Your task to perform on an android device: Go to Wikipedia Image 0: 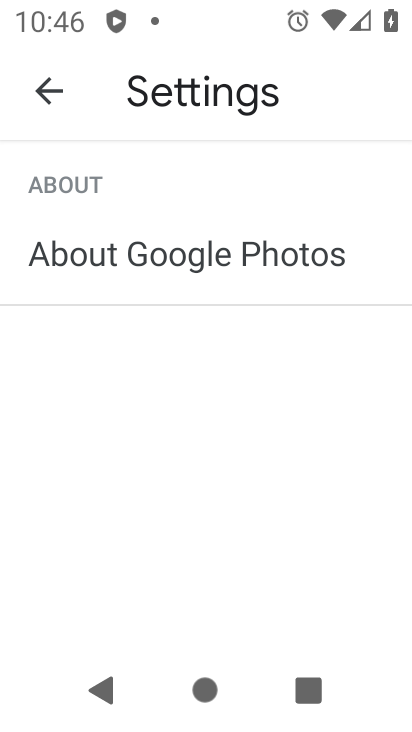
Step 0: press back button
Your task to perform on an android device: Go to Wikipedia Image 1: 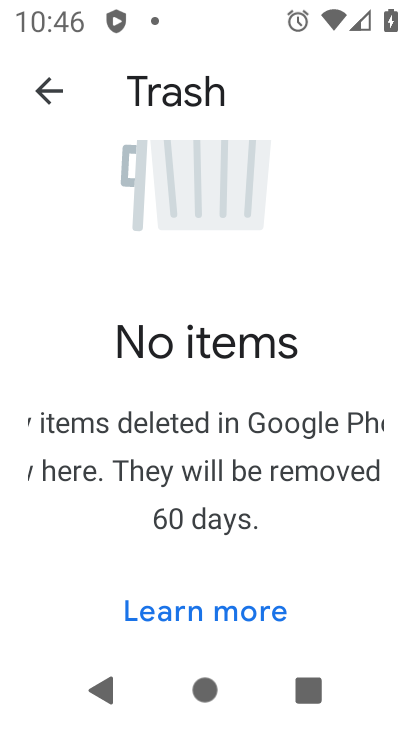
Step 1: press back button
Your task to perform on an android device: Go to Wikipedia Image 2: 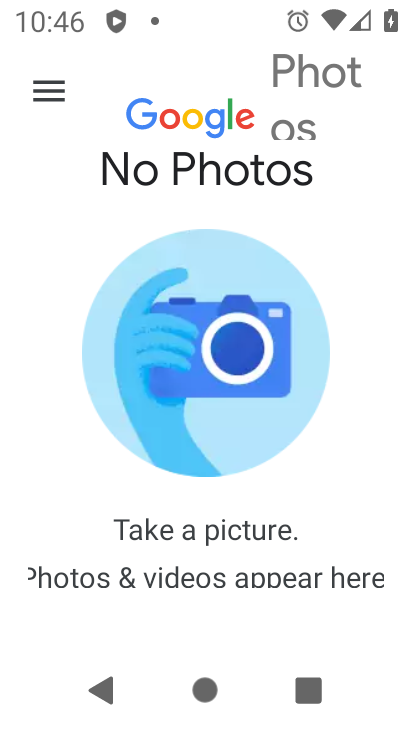
Step 2: press home button
Your task to perform on an android device: Go to Wikipedia Image 3: 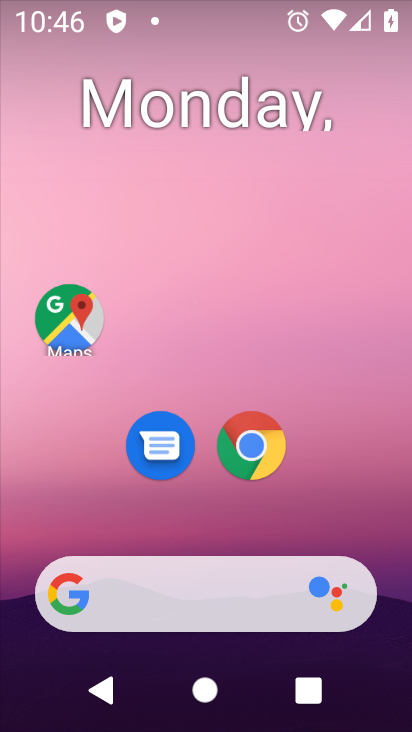
Step 3: click (267, 442)
Your task to perform on an android device: Go to Wikipedia Image 4: 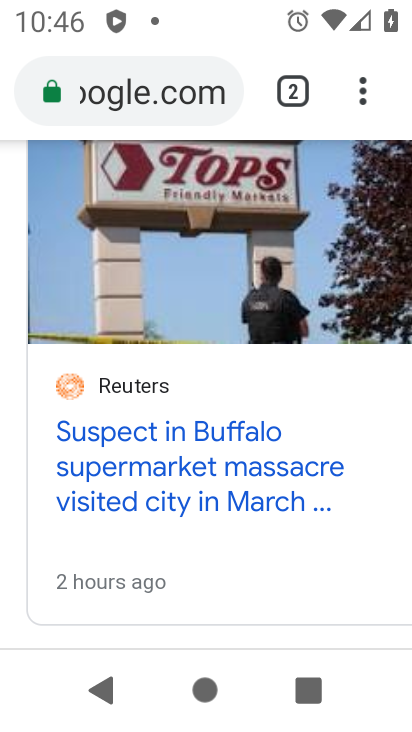
Step 4: click (296, 86)
Your task to perform on an android device: Go to Wikipedia Image 5: 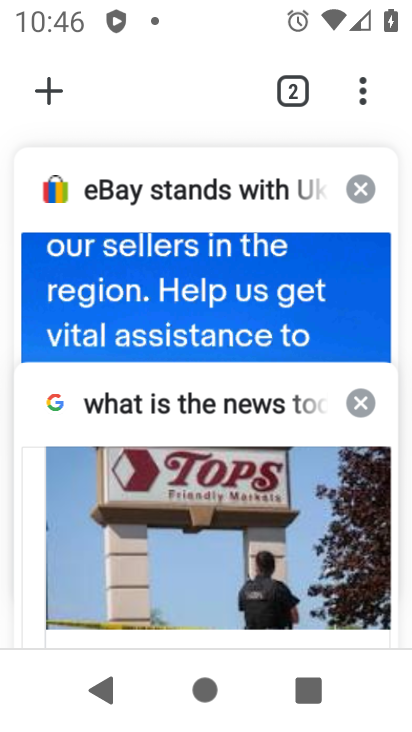
Step 5: click (50, 98)
Your task to perform on an android device: Go to Wikipedia Image 6: 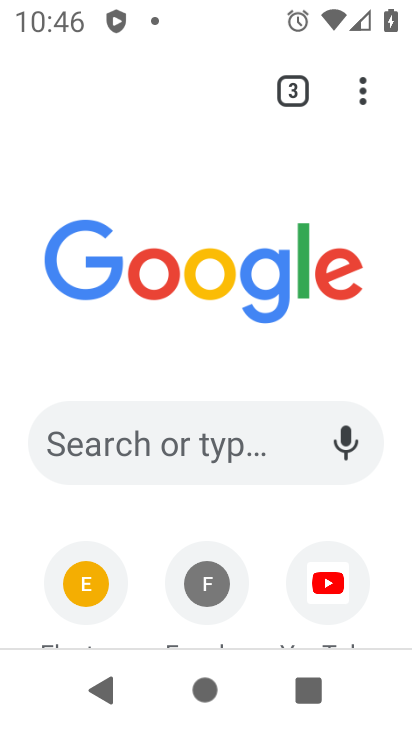
Step 6: drag from (135, 520) to (146, 179)
Your task to perform on an android device: Go to Wikipedia Image 7: 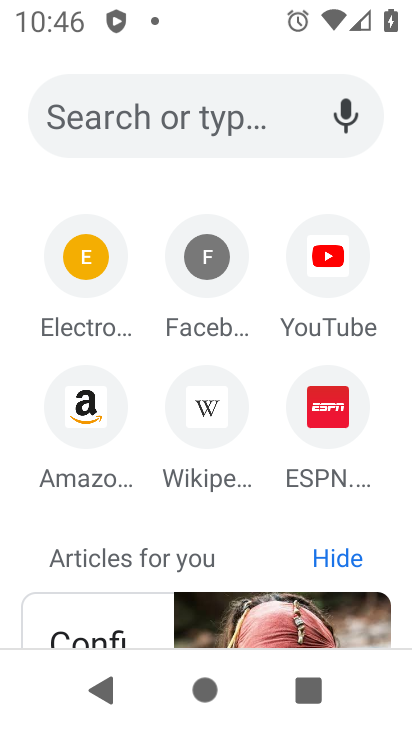
Step 7: click (216, 407)
Your task to perform on an android device: Go to Wikipedia Image 8: 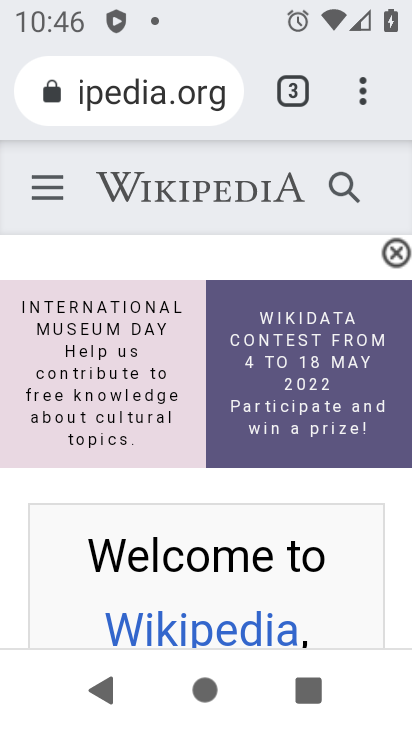
Step 8: task complete